Your task to perform on an android device: toggle javascript in the chrome app Image 0: 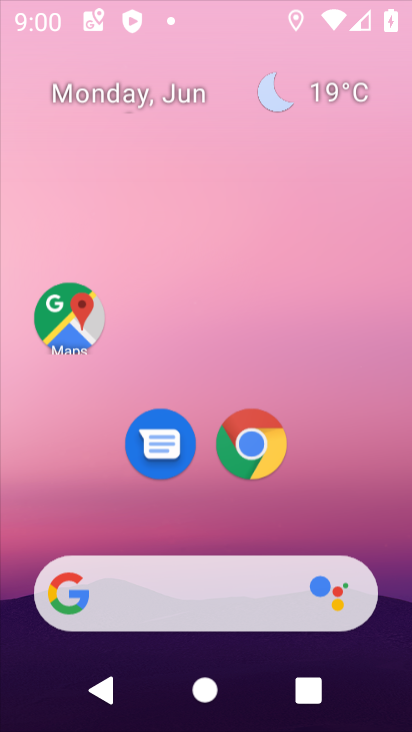
Step 0: press home button
Your task to perform on an android device: toggle javascript in the chrome app Image 1: 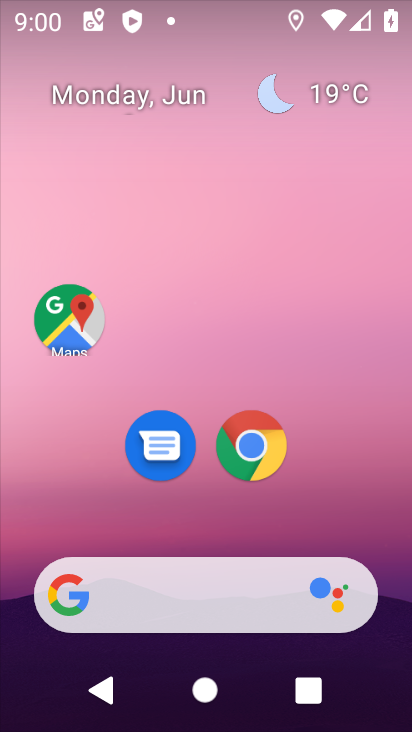
Step 1: click (249, 441)
Your task to perform on an android device: toggle javascript in the chrome app Image 2: 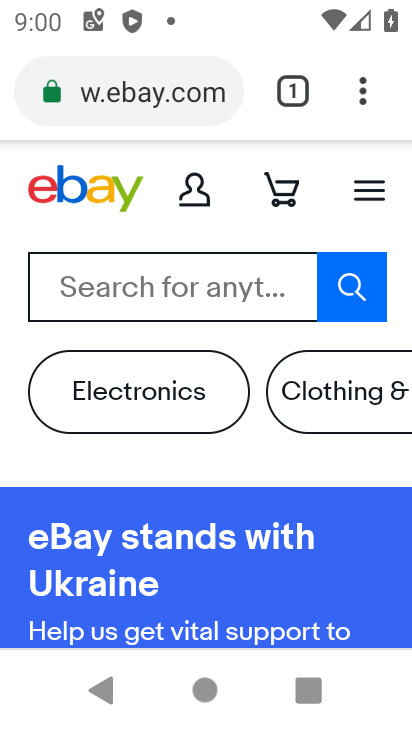
Step 2: click (360, 85)
Your task to perform on an android device: toggle javascript in the chrome app Image 3: 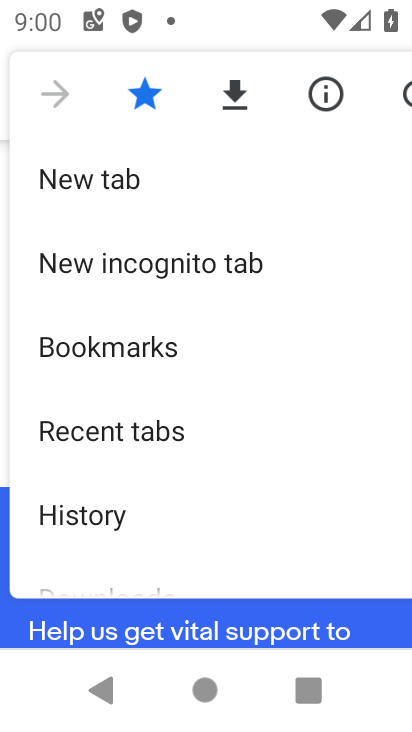
Step 3: drag from (173, 532) to (185, 217)
Your task to perform on an android device: toggle javascript in the chrome app Image 4: 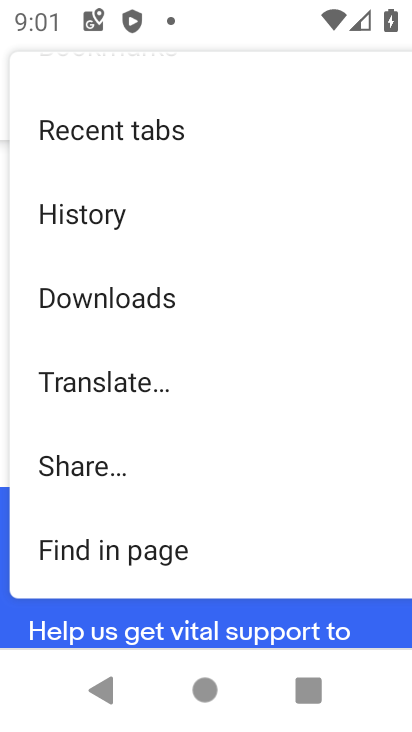
Step 4: drag from (174, 485) to (174, 103)
Your task to perform on an android device: toggle javascript in the chrome app Image 5: 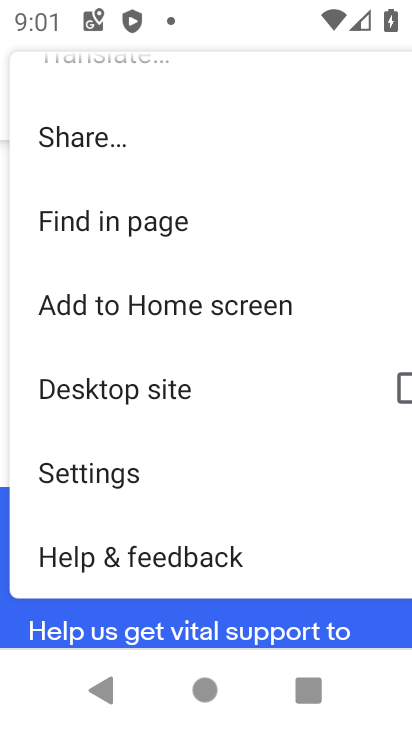
Step 5: click (158, 473)
Your task to perform on an android device: toggle javascript in the chrome app Image 6: 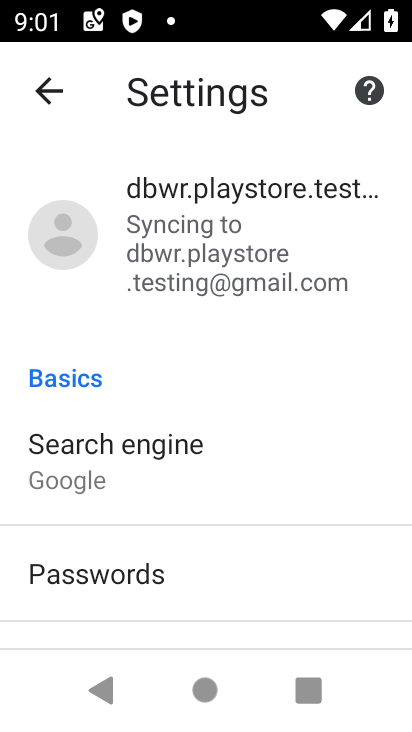
Step 6: drag from (217, 582) to (184, 174)
Your task to perform on an android device: toggle javascript in the chrome app Image 7: 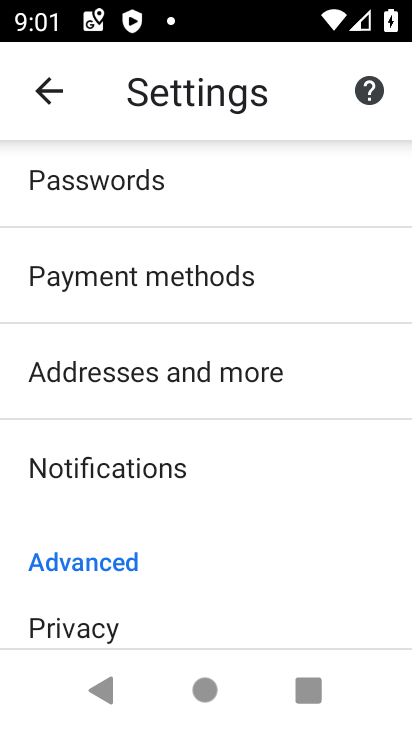
Step 7: drag from (199, 600) to (189, 165)
Your task to perform on an android device: toggle javascript in the chrome app Image 8: 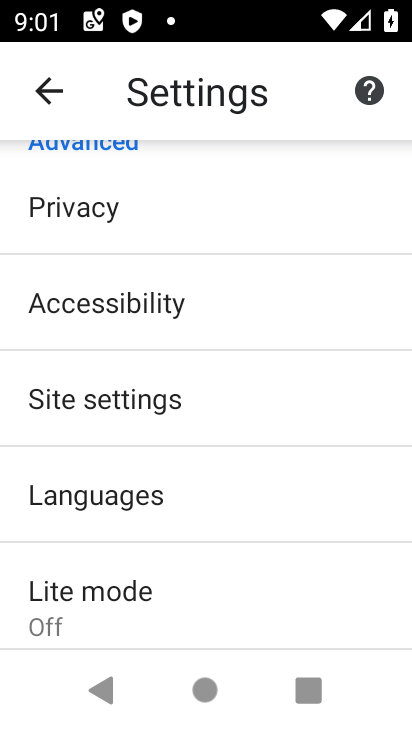
Step 8: click (201, 389)
Your task to perform on an android device: toggle javascript in the chrome app Image 9: 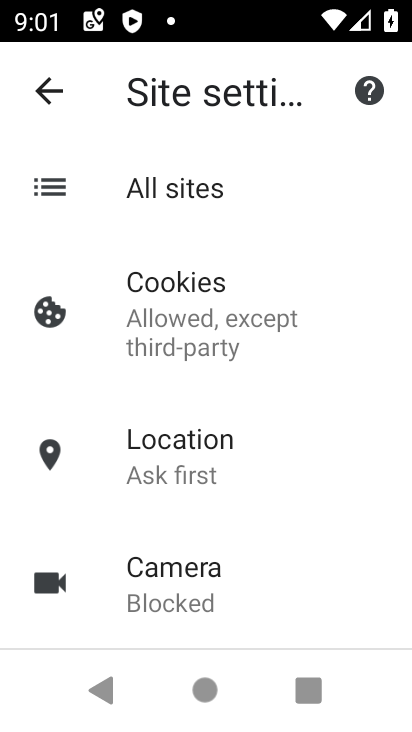
Step 9: drag from (242, 604) to (206, 117)
Your task to perform on an android device: toggle javascript in the chrome app Image 10: 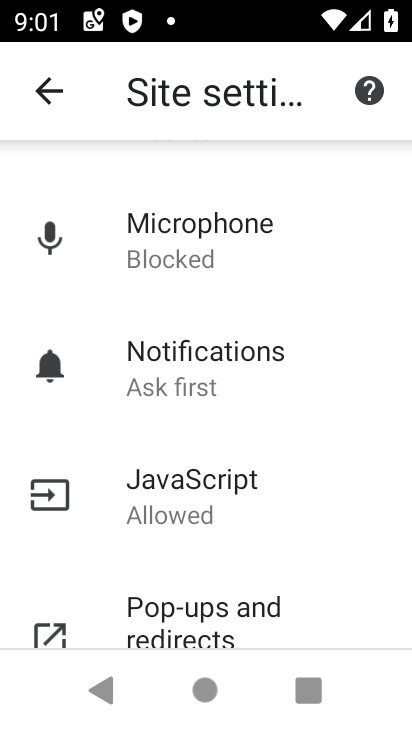
Step 10: click (88, 491)
Your task to perform on an android device: toggle javascript in the chrome app Image 11: 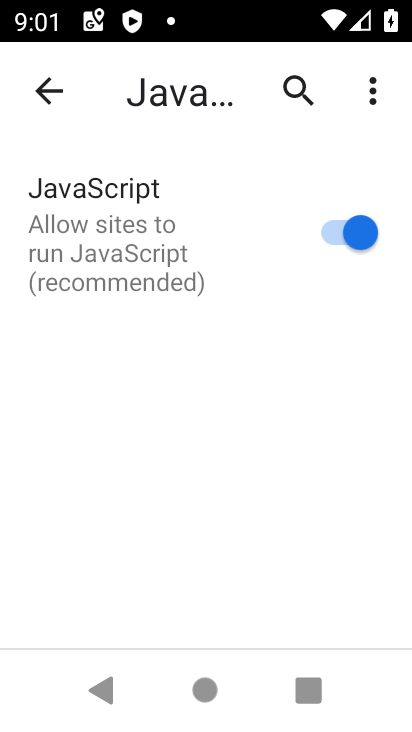
Step 11: click (333, 234)
Your task to perform on an android device: toggle javascript in the chrome app Image 12: 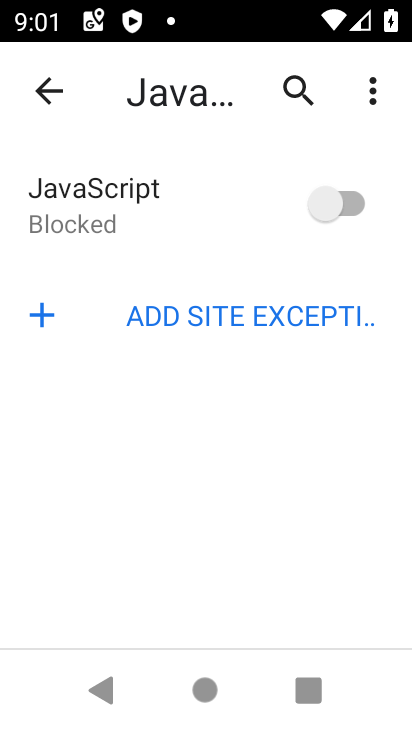
Step 12: task complete